Your task to perform on an android device: delete the emails in spam in the gmail app Image 0: 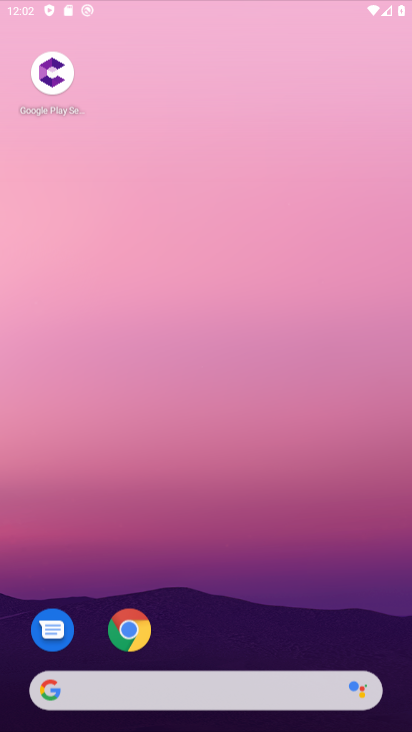
Step 0: drag from (218, 627) to (247, 0)
Your task to perform on an android device: delete the emails in spam in the gmail app Image 1: 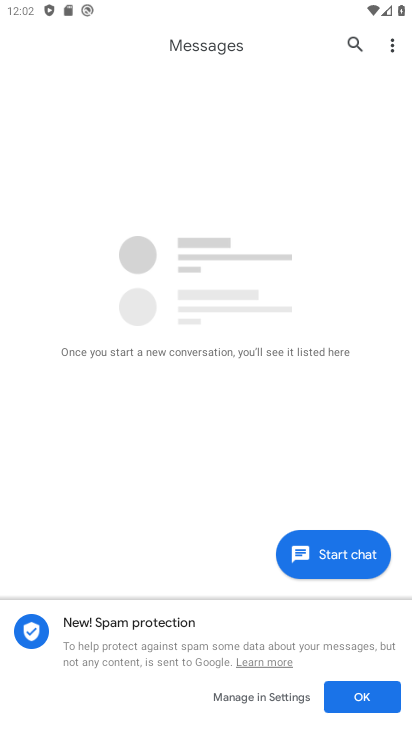
Step 1: press home button
Your task to perform on an android device: delete the emails in spam in the gmail app Image 2: 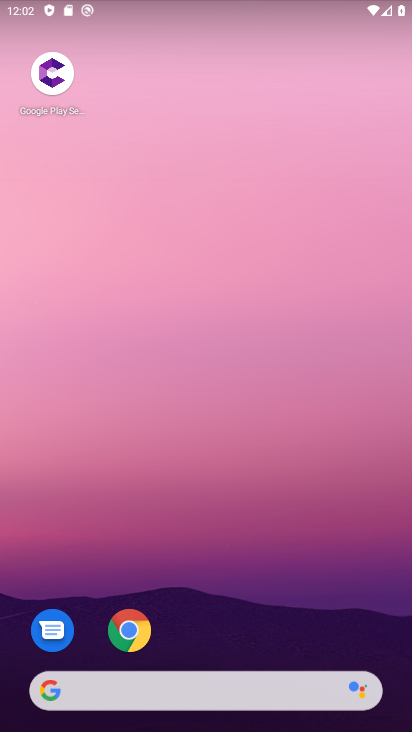
Step 2: drag from (223, 590) to (165, 40)
Your task to perform on an android device: delete the emails in spam in the gmail app Image 3: 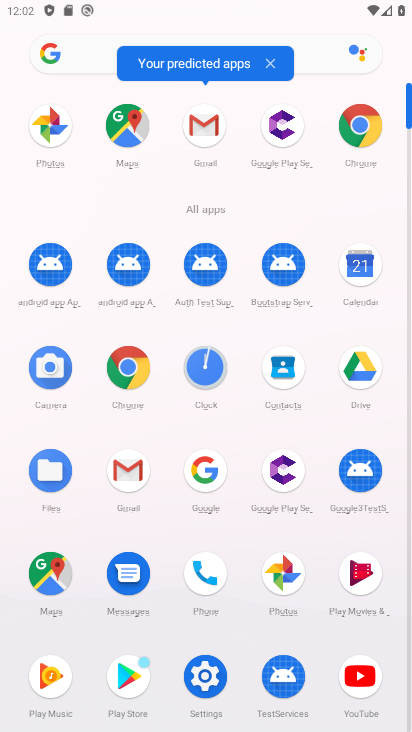
Step 3: click (201, 133)
Your task to perform on an android device: delete the emails in spam in the gmail app Image 4: 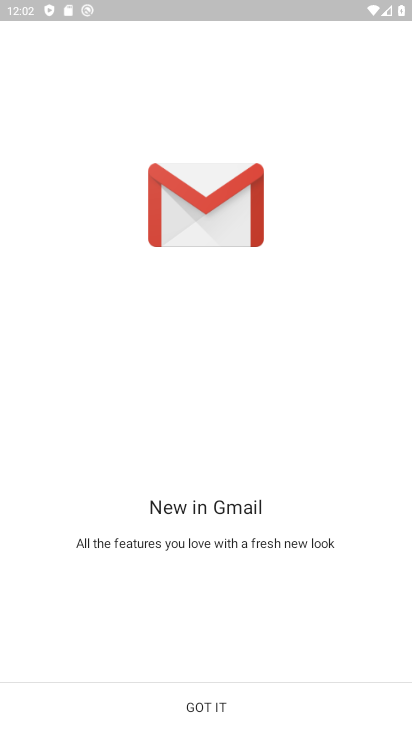
Step 4: click (209, 707)
Your task to perform on an android device: delete the emails in spam in the gmail app Image 5: 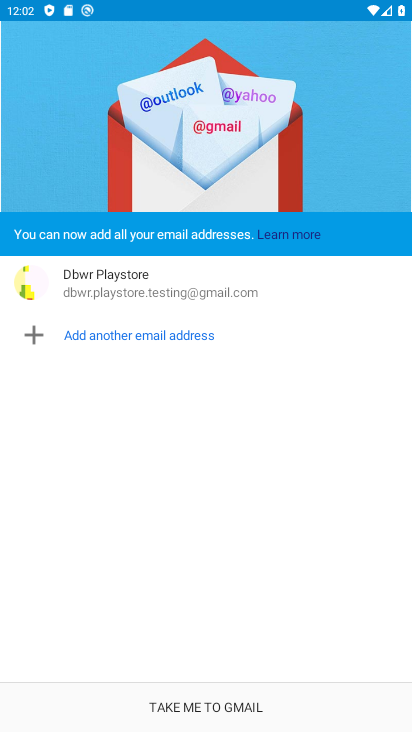
Step 5: click (209, 707)
Your task to perform on an android device: delete the emails in spam in the gmail app Image 6: 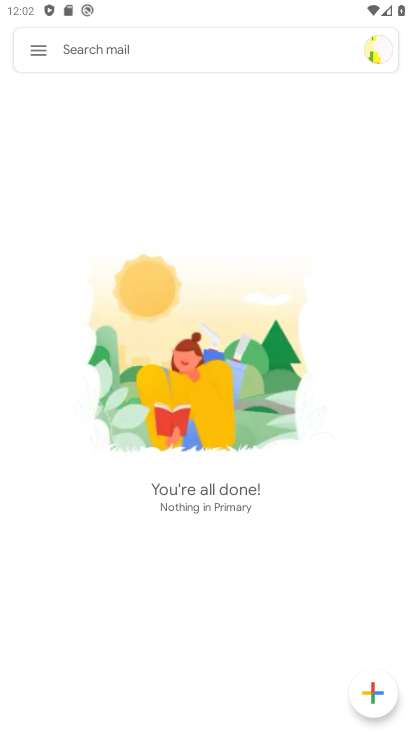
Step 6: click (36, 50)
Your task to perform on an android device: delete the emails in spam in the gmail app Image 7: 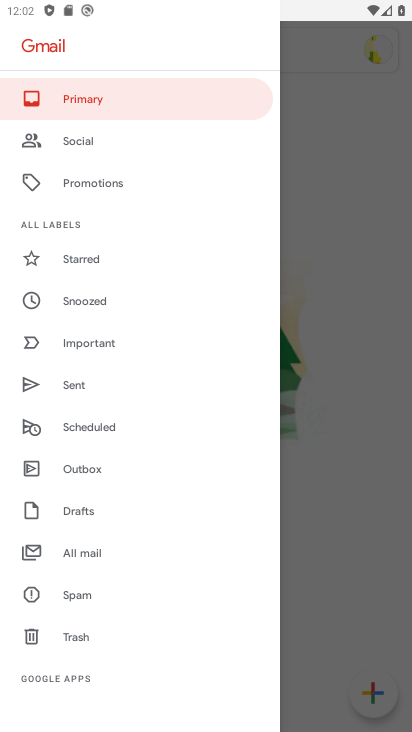
Step 7: click (79, 593)
Your task to perform on an android device: delete the emails in spam in the gmail app Image 8: 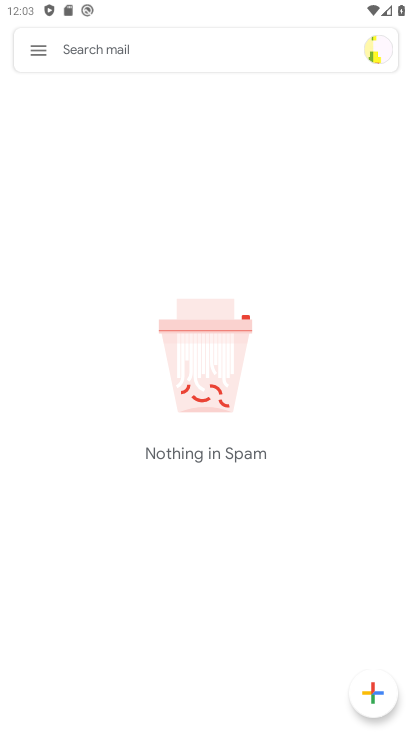
Step 8: task complete